Your task to perform on an android device: Go to Yahoo.com Image 0: 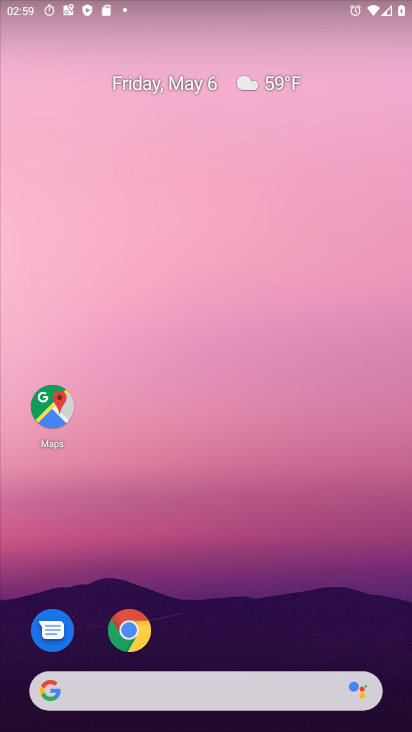
Step 0: click (124, 636)
Your task to perform on an android device: Go to Yahoo.com Image 1: 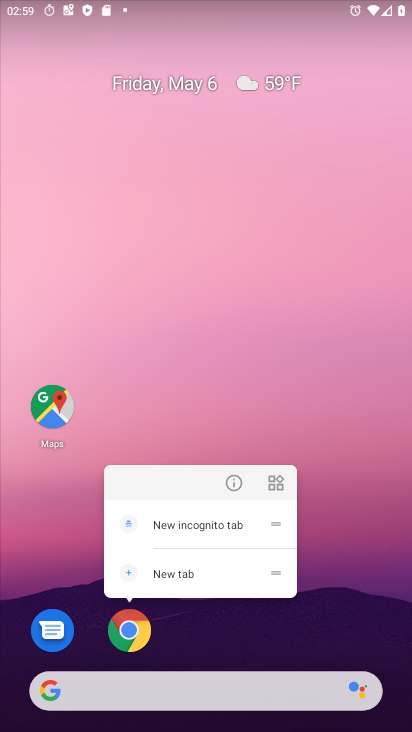
Step 1: click (145, 617)
Your task to perform on an android device: Go to Yahoo.com Image 2: 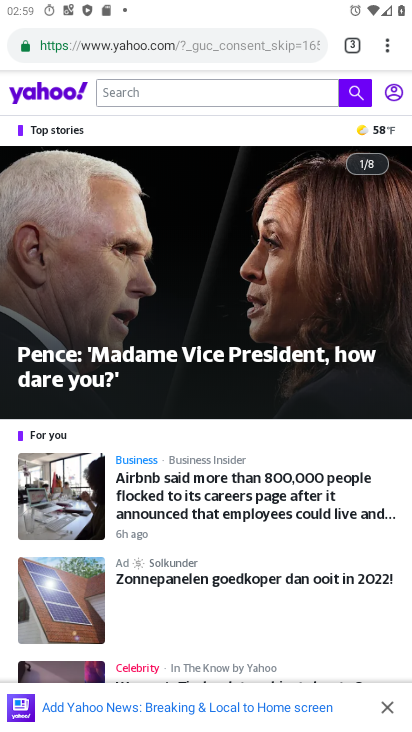
Step 2: task complete